Your task to perform on an android device: Open Maps and search for coffee Image 0: 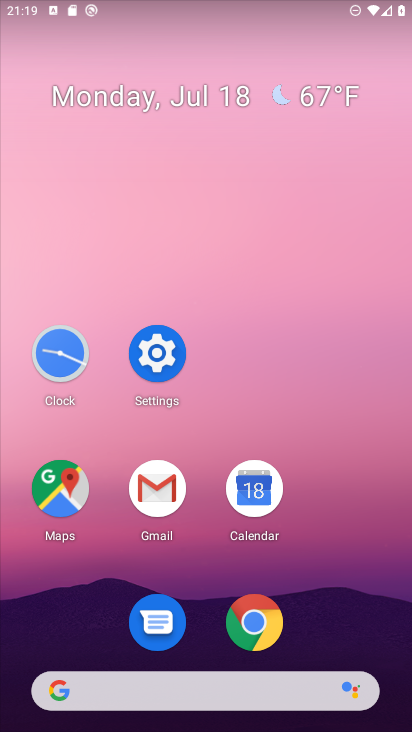
Step 0: click (68, 490)
Your task to perform on an android device: Open Maps and search for coffee Image 1: 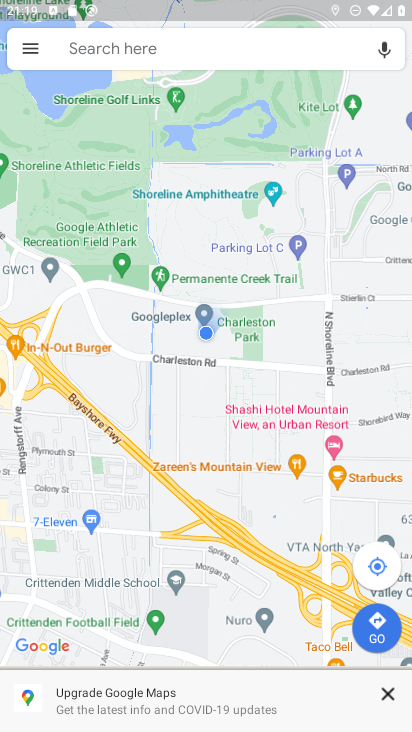
Step 1: click (155, 59)
Your task to perform on an android device: Open Maps and search for coffee Image 2: 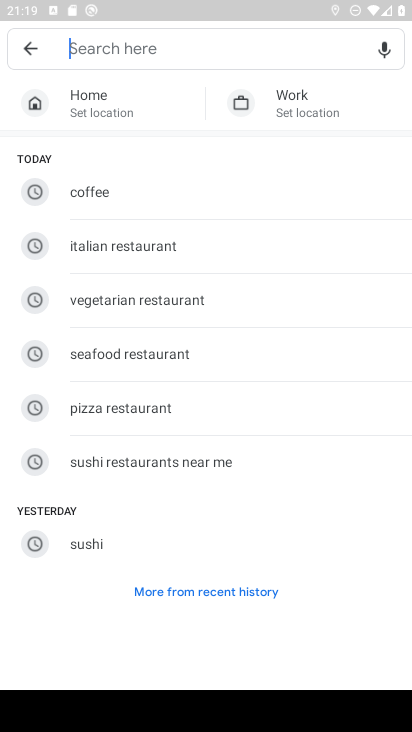
Step 2: click (90, 189)
Your task to perform on an android device: Open Maps and search for coffee Image 3: 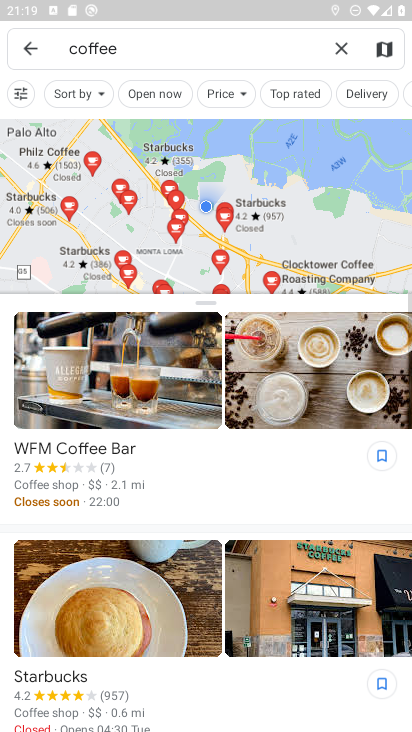
Step 3: task complete